Your task to perform on an android device: choose inbox layout in the gmail app Image 0: 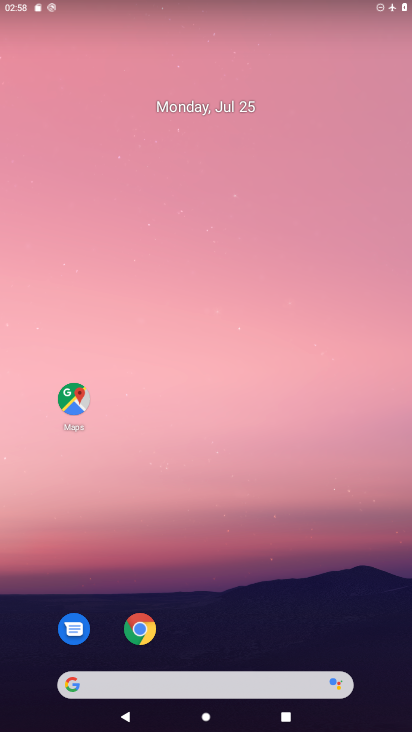
Step 0: drag from (244, 585) to (256, 113)
Your task to perform on an android device: choose inbox layout in the gmail app Image 1: 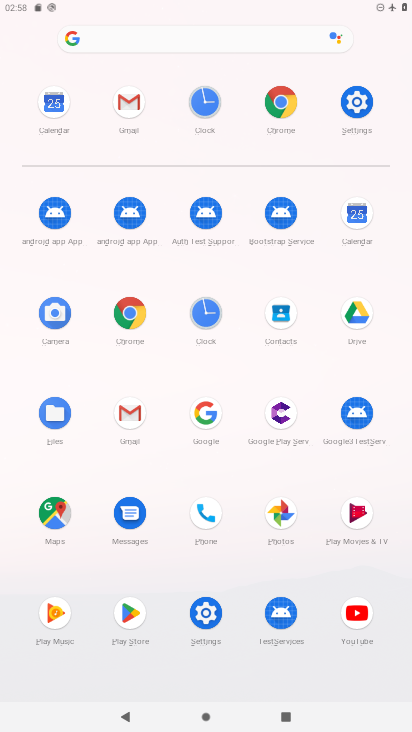
Step 1: click (123, 405)
Your task to perform on an android device: choose inbox layout in the gmail app Image 2: 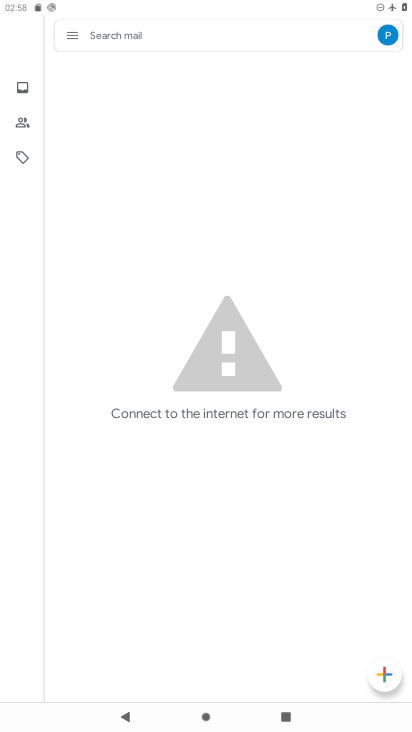
Step 2: click (69, 28)
Your task to perform on an android device: choose inbox layout in the gmail app Image 3: 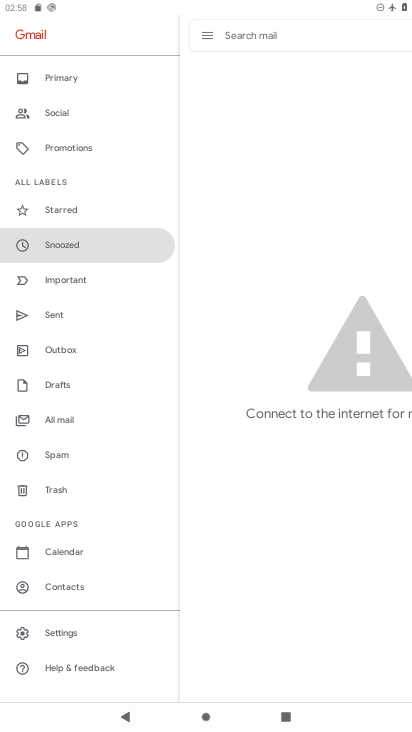
Step 3: click (70, 628)
Your task to perform on an android device: choose inbox layout in the gmail app Image 4: 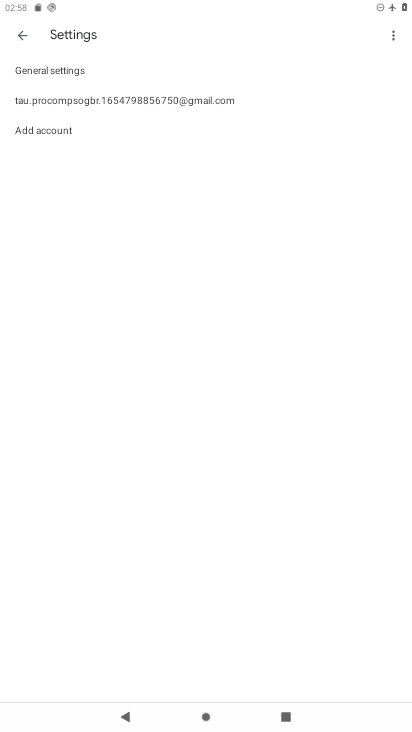
Step 4: click (71, 98)
Your task to perform on an android device: choose inbox layout in the gmail app Image 5: 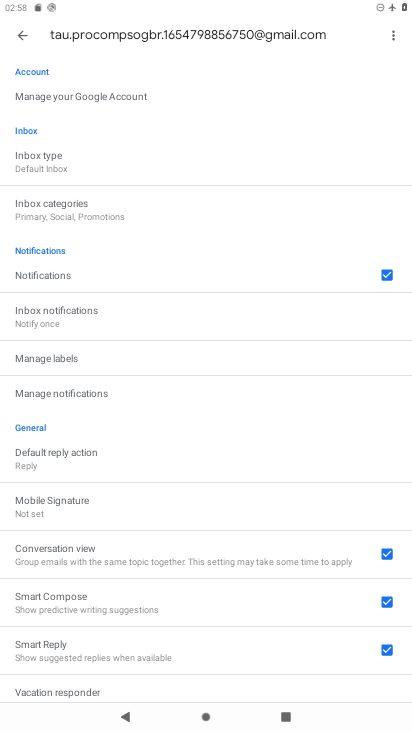
Step 5: drag from (271, 496) to (250, 98)
Your task to perform on an android device: choose inbox layout in the gmail app Image 6: 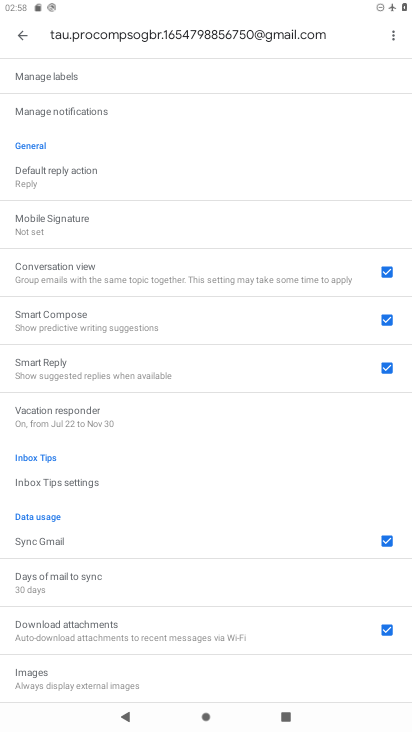
Step 6: drag from (109, 190) to (81, 706)
Your task to perform on an android device: choose inbox layout in the gmail app Image 7: 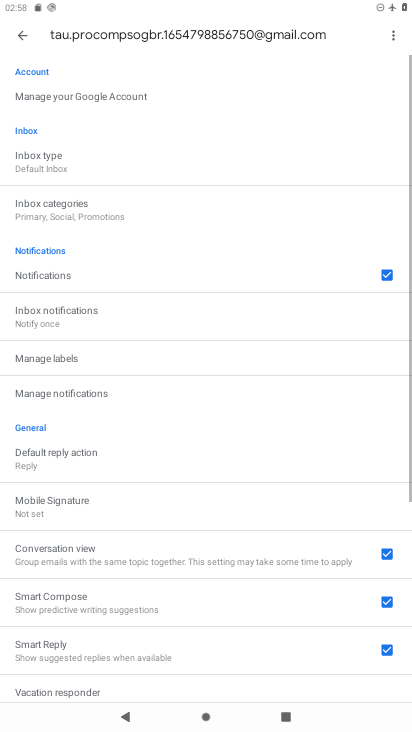
Step 7: click (52, 175)
Your task to perform on an android device: choose inbox layout in the gmail app Image 8: 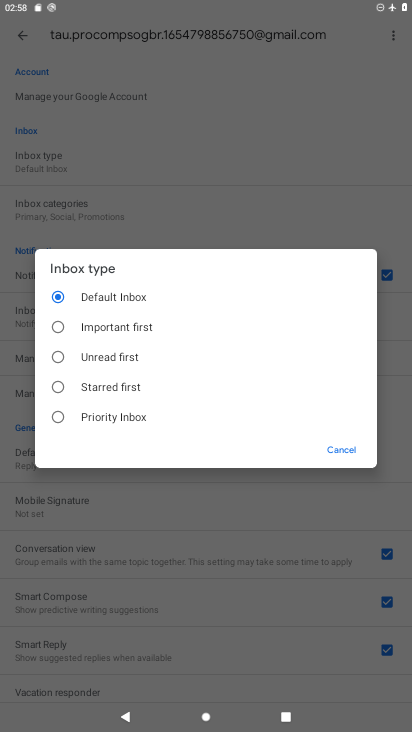
Step 8: click (108, 410)
Your task to perform on an android device: choose inbox layout in the gmail app Image 9: 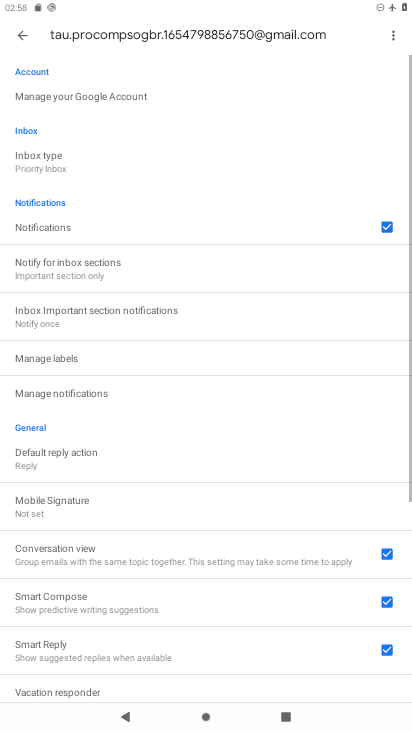
Step 9: task complete